Your task to perform on an android device: Go to battery settings Image 0: 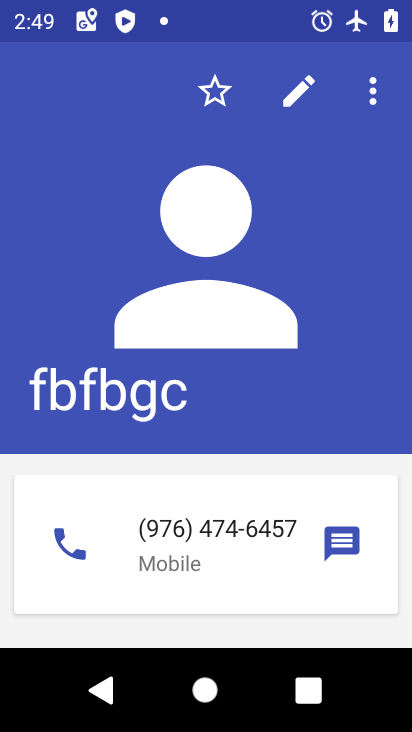
Step 0: press home button
Your task to perform on an android device: Go to battery settings Image 1: 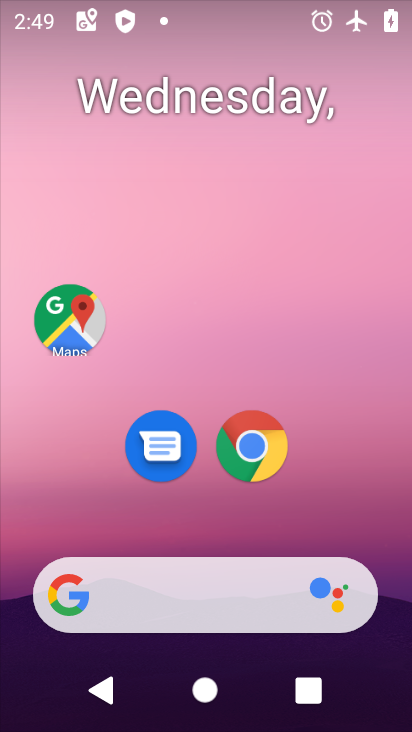
Step 1: drag from (205, 524) to (212, 225)
Your task to perform on an android device: Go to battery settings Image 2: 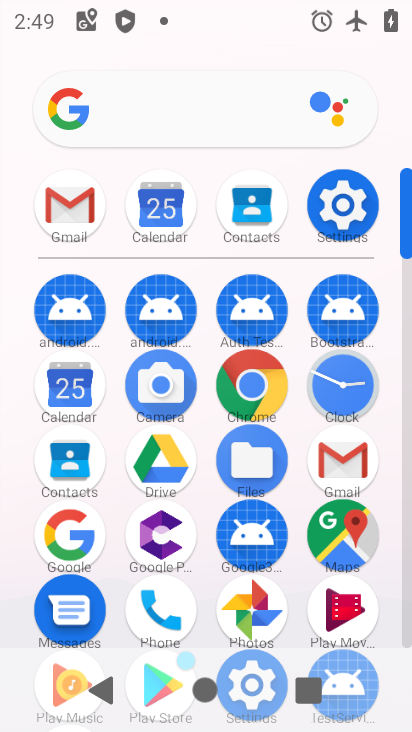
Step 2: click (321, 211)
Your task to perform on an android device: Go to battery settings Image 3: 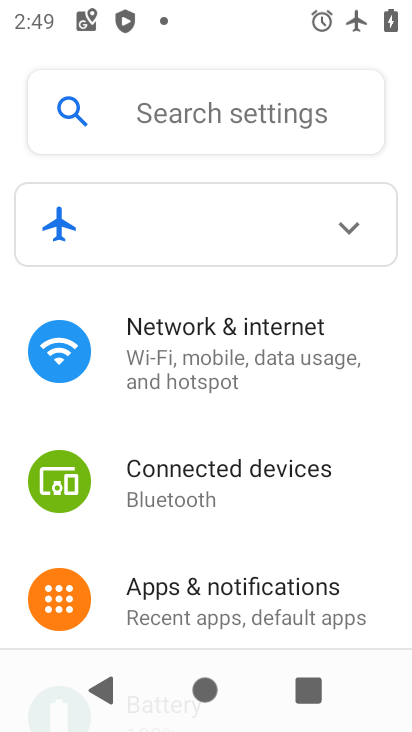
Step 3: drag from (236, 612) to (276, 312)
Your task to perform on an android device: Go to battery settings Image 4: 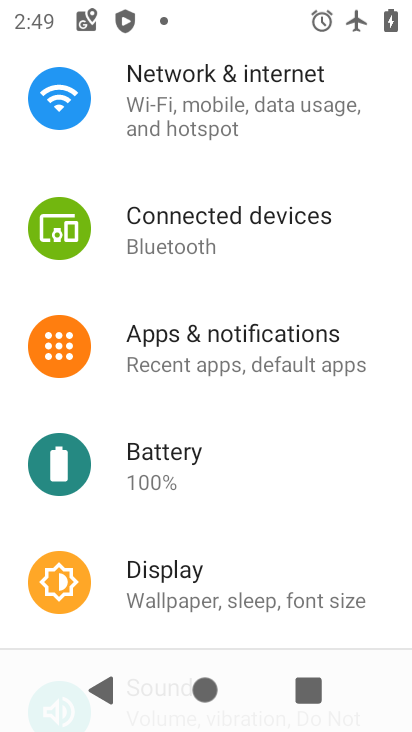
Step 4: click (236, 474)
Your task to perform on an android device: Go to battery settings Image 5: 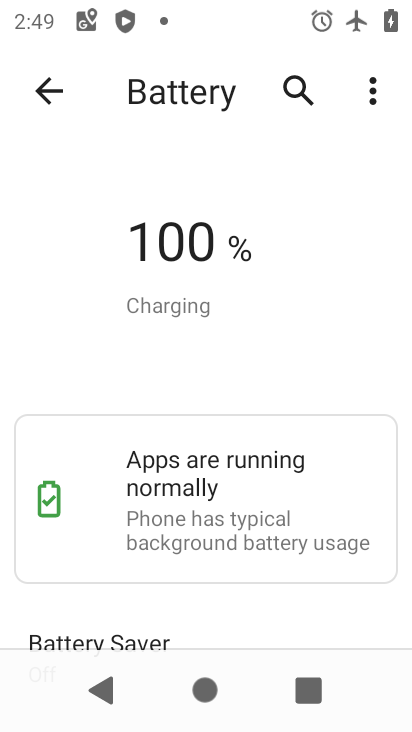
Step 5: task complete